Your task to perform on an android device: turn pop-ups on in chrome Image 0: 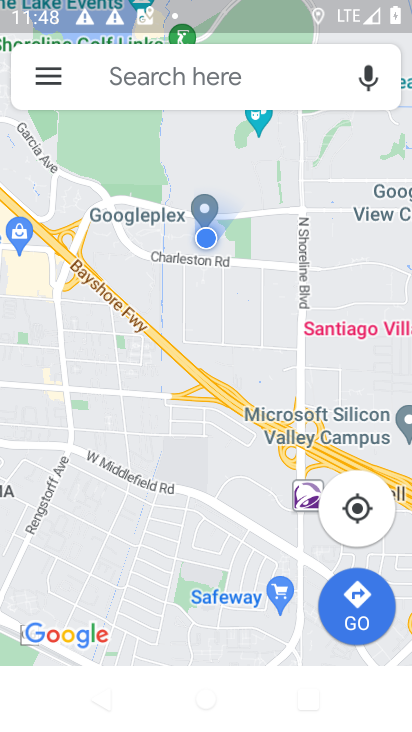
Step 0: press home button
Your task to perform on an android device: turn pop-ups on in chrome Image 1: 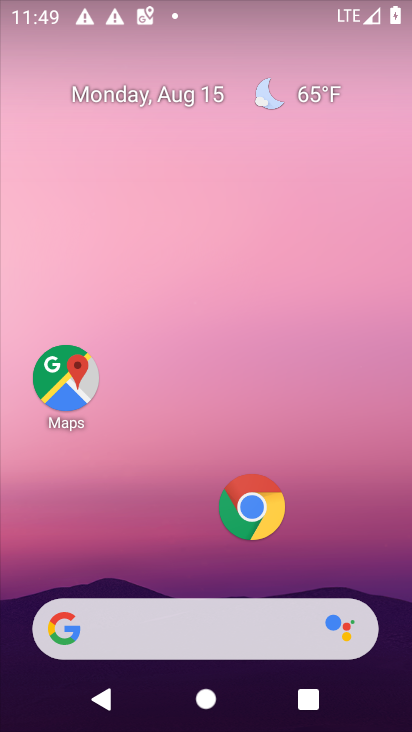
Step 1: click (256, 510)
Your task to perform on an android device: turn pop-ups on in chrome Image 2: 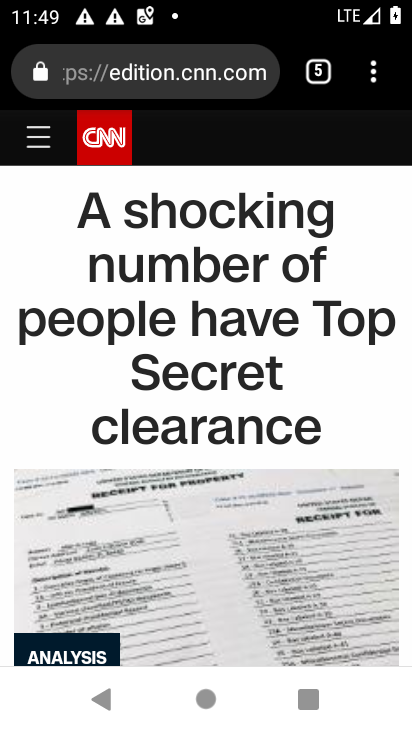
Step 2: click (378, 69)
Your task to perform on an android device: turn pop-ups on in chrome Image 3: 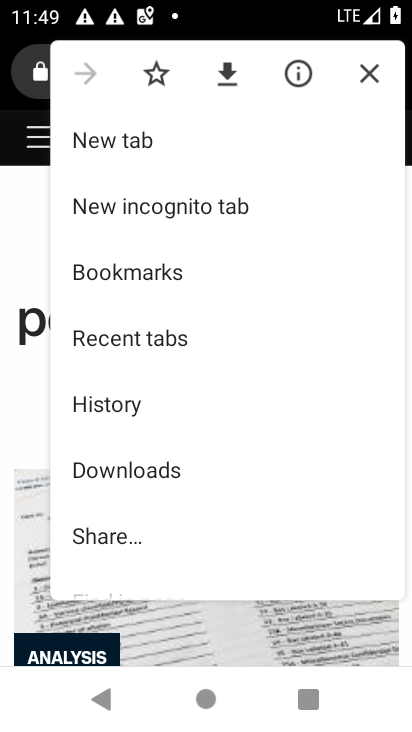
Step 3: drag from (238, 520) to (233, 212)
Your task to perform on an android device: turn pop-ups on in chrome Image 4: 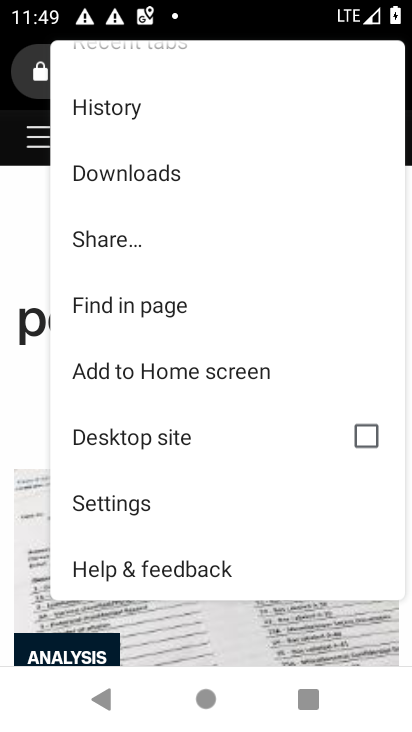
Step 4: click (115, 502)
Your task to perform on an android device: turn pop-ups on in chrome Image 5: 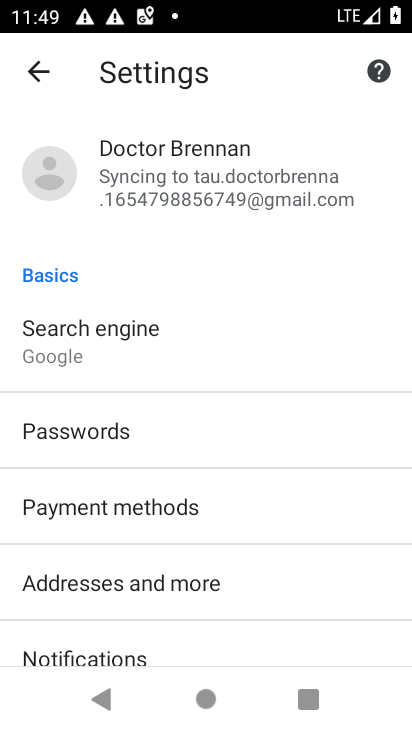
Step 5: drag from (273, 596) to (272, 231)
Your task to perform on an android device: turn pop-ups on in chrome Image 6: 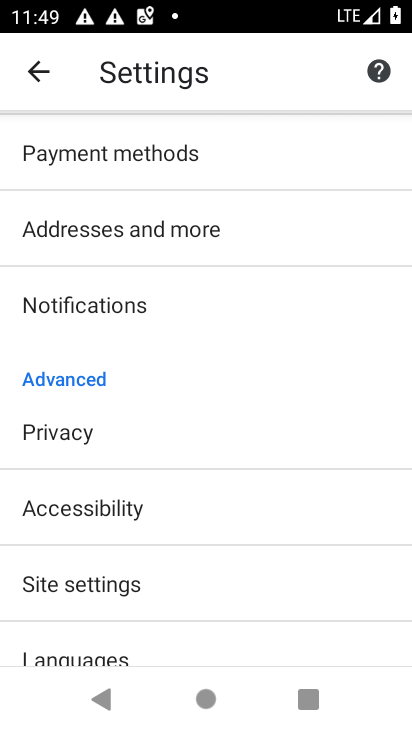
Step 6: click (101, 573)
Your task to perform on an android device: turn pop-ups on in chrome Image 7: 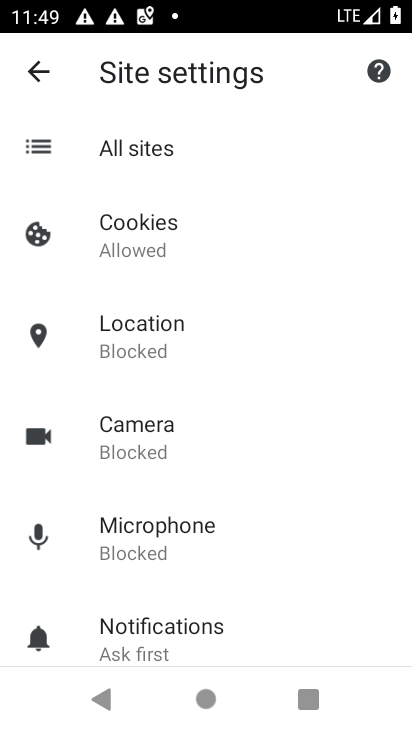
Step 7: drag from (251, 570) to (250, 277)
Your task to perform on an android device: turn pop-ups on in chrome Image 8: 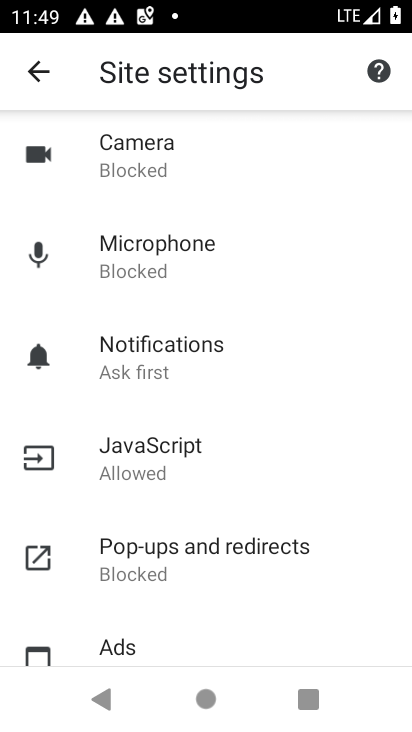
Step 8: click (176, 547)
Your task to perform on an android device: turn pop-ups on in chrome Image 9: 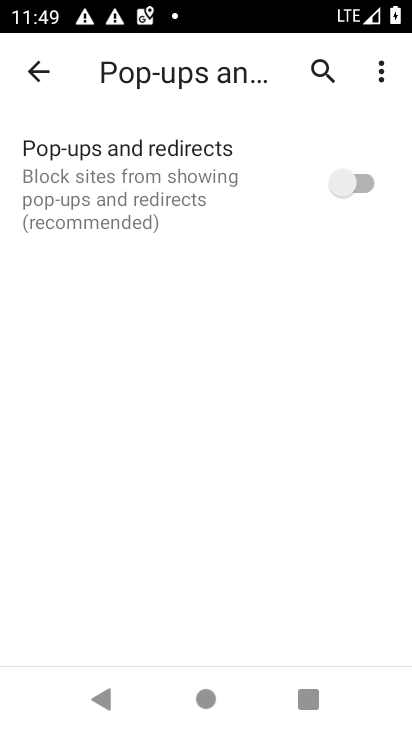
Step 9: click (334, 183)
Your task to perform on an android device: turn pop-ups on in chrome Image 10: 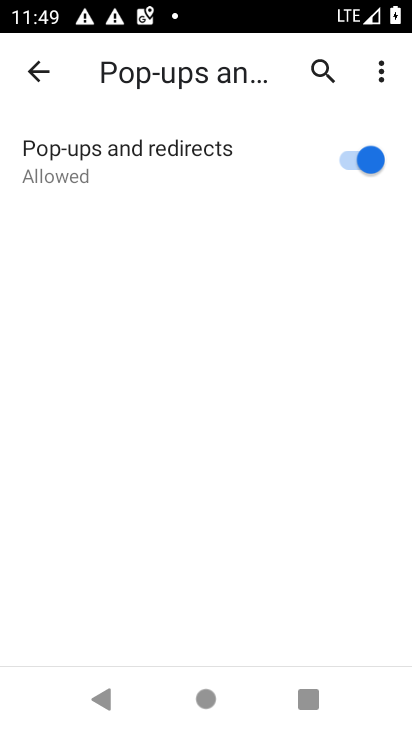
Step 10: task complete